Your task to perform on an android device: turn pop-ups off in chrome Image 0: 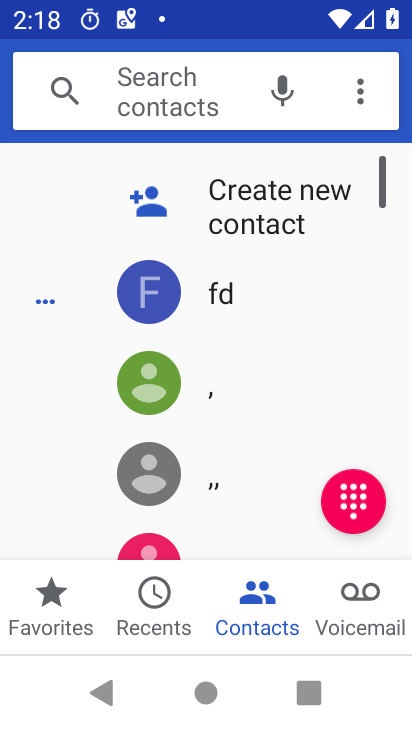
Step 0: press home button
Your task to perform on an android device: turn pop-ups off in chrome Image 1: 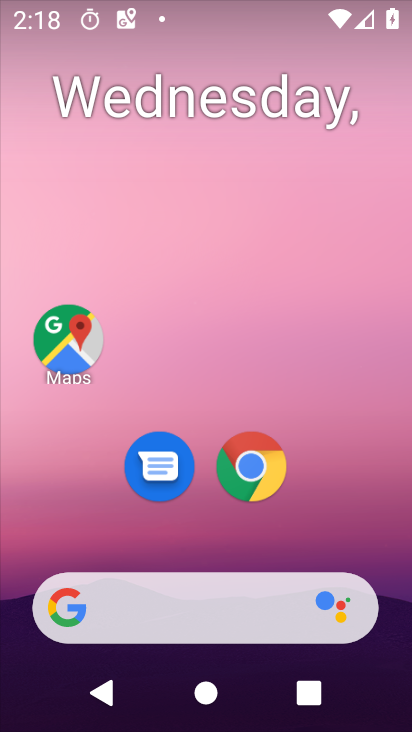
Step 1: click (257, 494)
Your task to perform on an android device: turn pop-ups off in chrome Image 2: 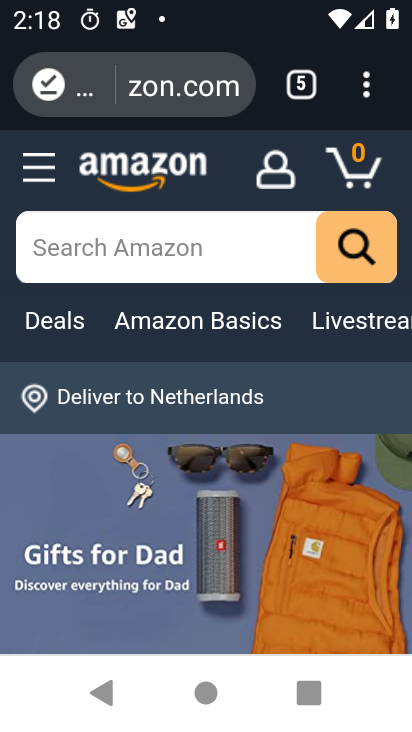
Step 2: click (369, 80)
Your task to perform on an android device: turn pop-ups off in chrome Image 3: 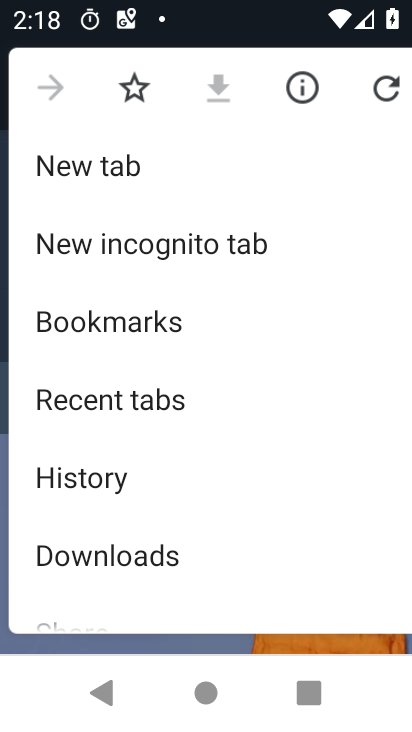
Step 3: drag from (253, 450) to (251, 148)
Your task to perform on an android device: turn pop-ups off in chrome Image 4: 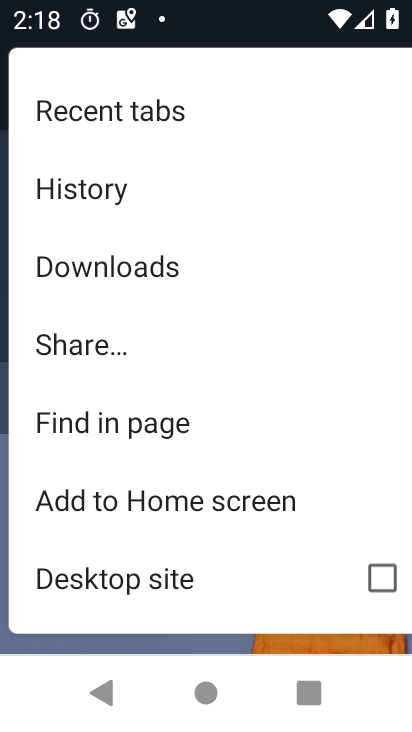
Step 4: drag from (198, 536) to (191, 126)
Your task to perform on an android device: turn pop-ups off in chrome Image 5: 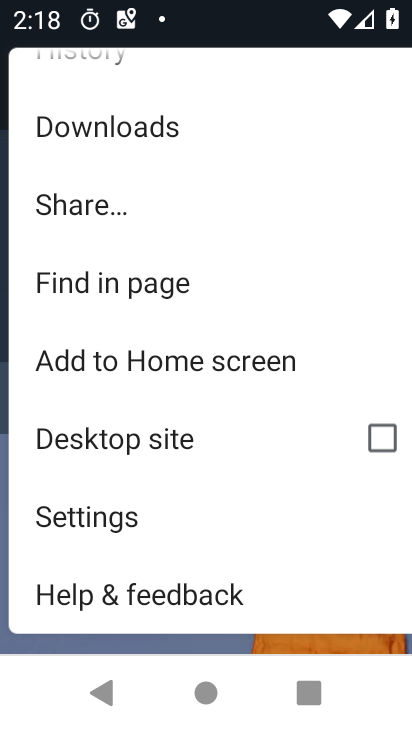
Step 5: click (83, 536)
Your task to perform on an android device: turn pop-ups off in chrome Image 6: 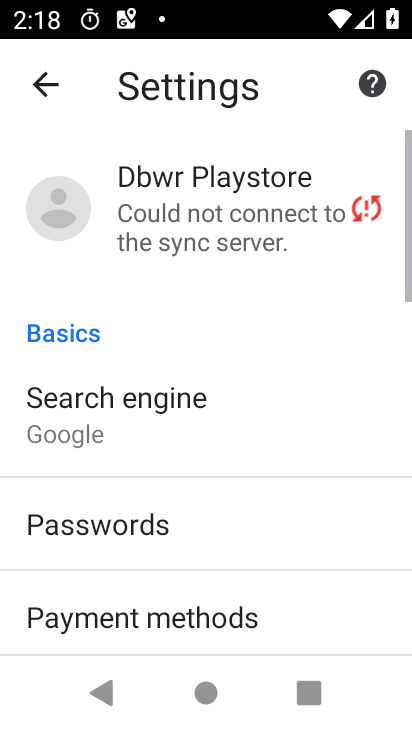
Step 6: drag from (188, 569) to (179, 129)
Your task to perform on an android device: turn pop-ups off in chrome Image 7: 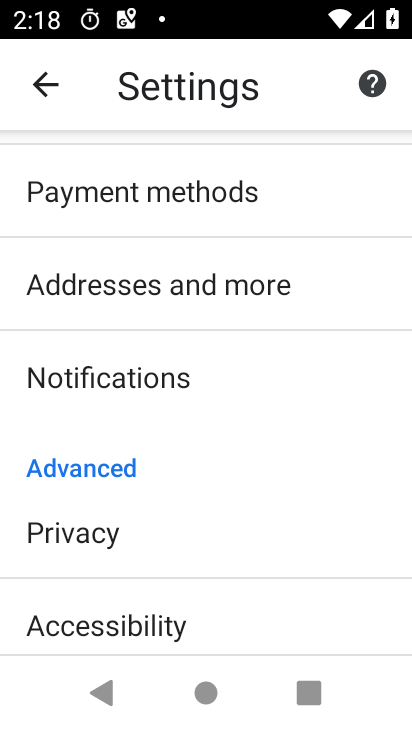
Step 7: drag from (154, 520) to (145, 244)
Your task to perform on an android device: turn pop-ups off in chrome Image 8: 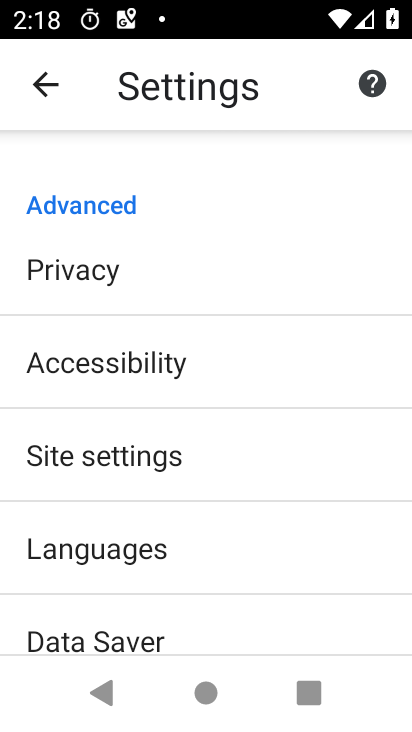
Step 8: click (133, 451)
Your task to perform on an android device: turn pop-ups off in chrome Image 9: 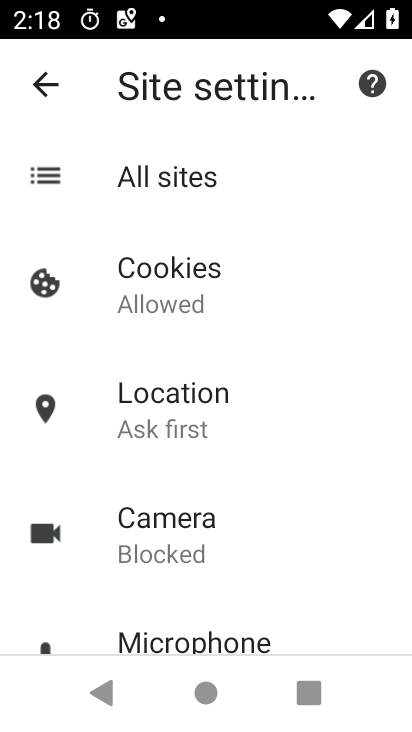
Step 9: drag from (212, 548) to (203, 255)
Your task to perform on an android device: turn pop-ups off in chrome Image 10: 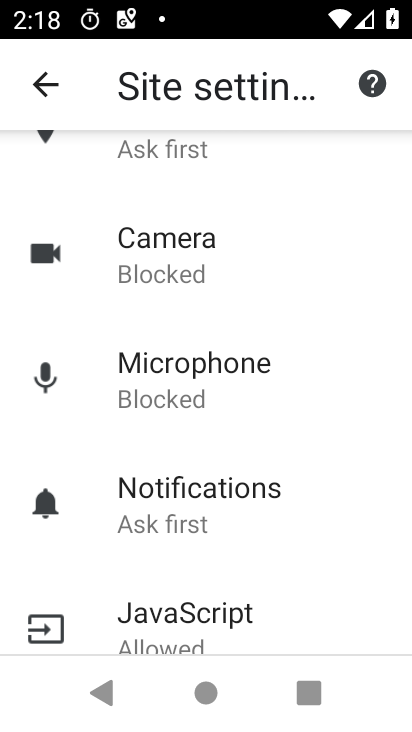
Step 10: drag from (202, 552) to (192, 248)
Your task to perform on an android device: turn pop-ups off in chrome Image 11: 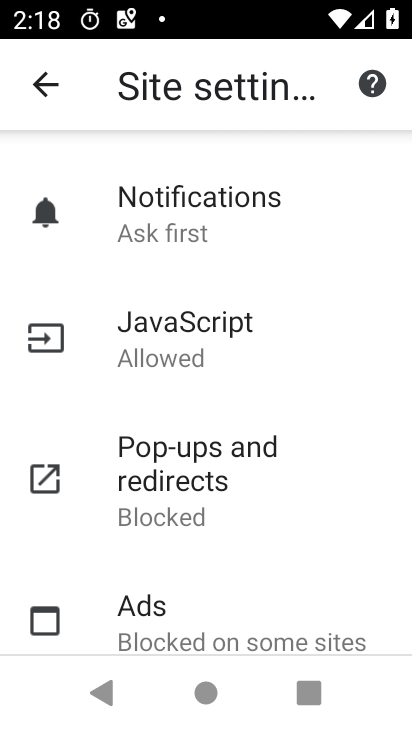
Step 11: click (217, 465)
Your task to perform on an android device: turn pop-ups off in chrome Image 12: 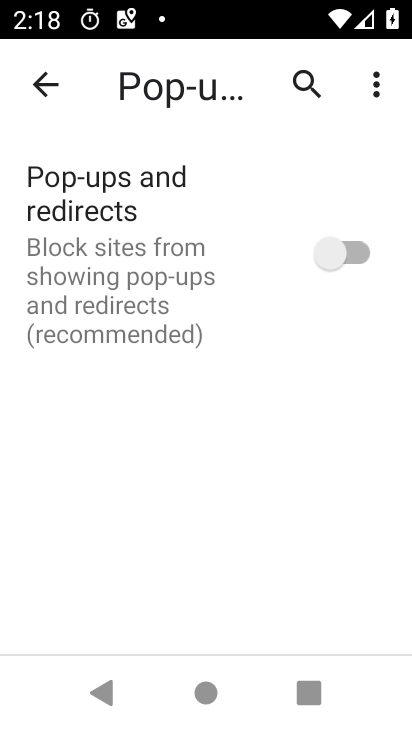
Step 12: task complete